Your task to perform on an android device: turn pop-ups on in chrome Image 0: 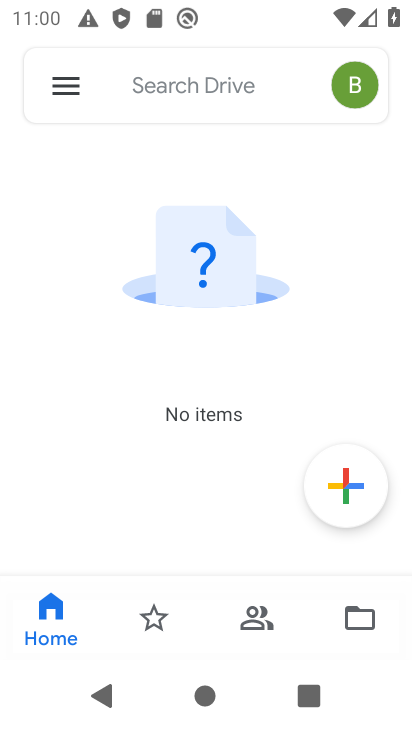
Step 0: press home button
Your task to perform on an android device: turn pop-ups on in chrome Image 1: 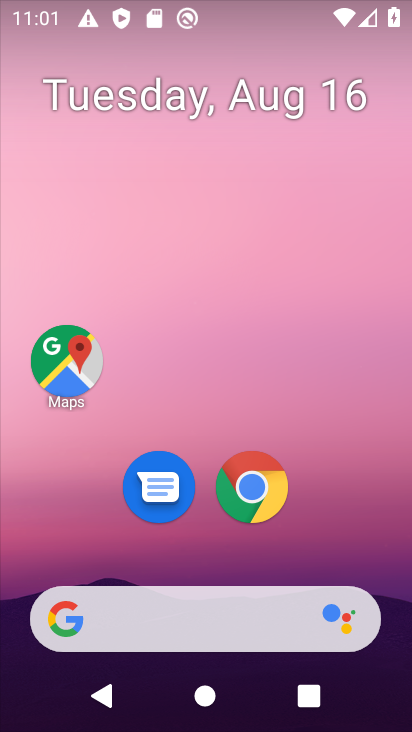
Step 1: click (240, 505)
Your task to perform on an android device: turn pop-ups on in chrome Image 2: 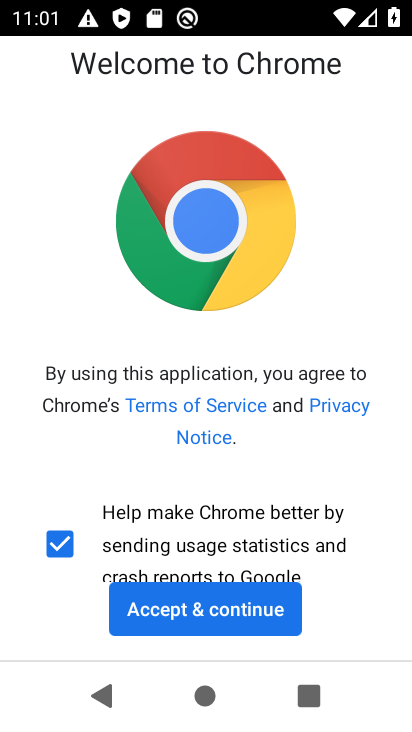
Step 2: click (285, 616)
Your task to perform on an android device: turn pop-ups on in chrome Image 3: 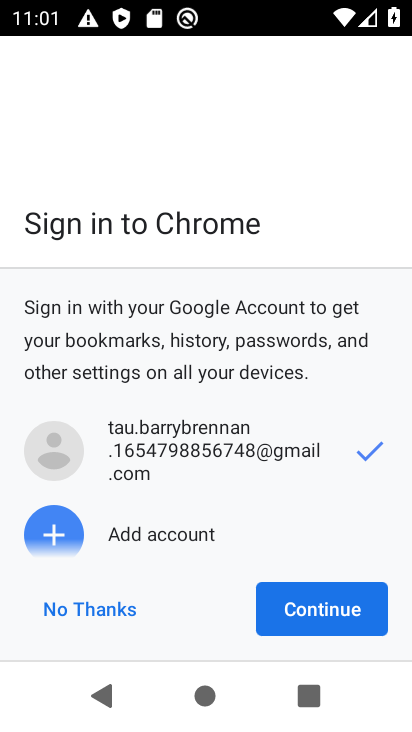
Step 3: click (285, 616)
Your task to perform on an android device: turn pop-ups on in chrome Image 4: 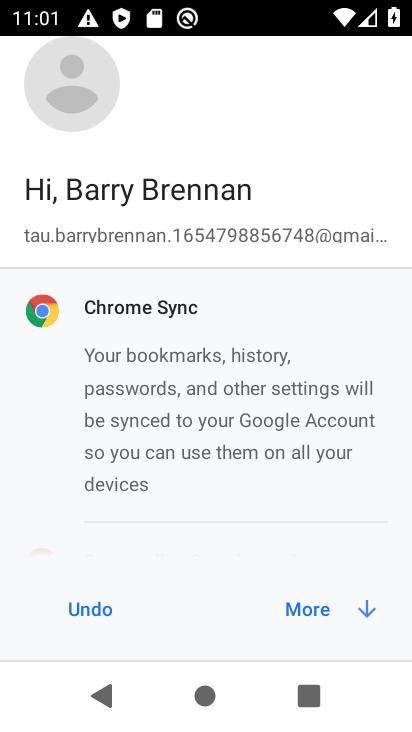
Step 4: click (323, 598)
Your task to perform on an android device: turn pop-ups on in chrome Image 5: 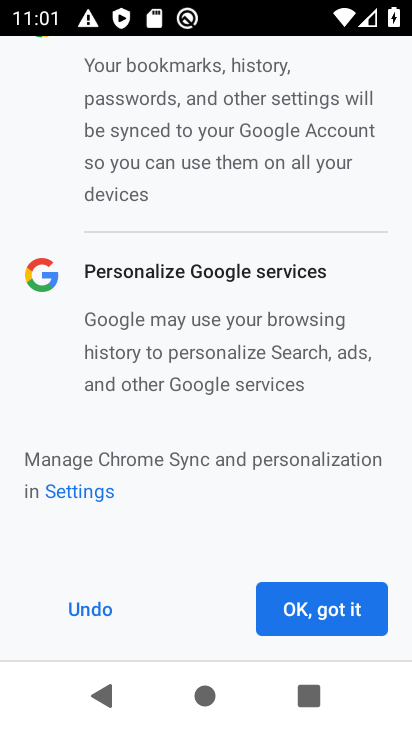
Step 5: click (323, 598)
Your task to perform on an android device: turn pop-ups on in chrome Image 6: 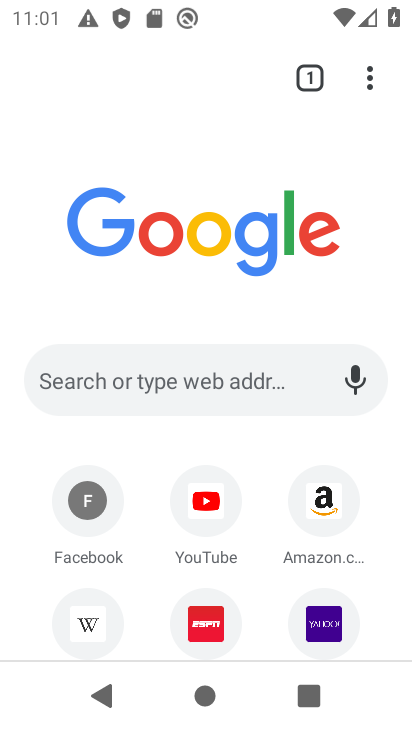
Step 6: click (377, 78)
Your task to perform on an android device: turn pop-ups on in chrome Image 7: 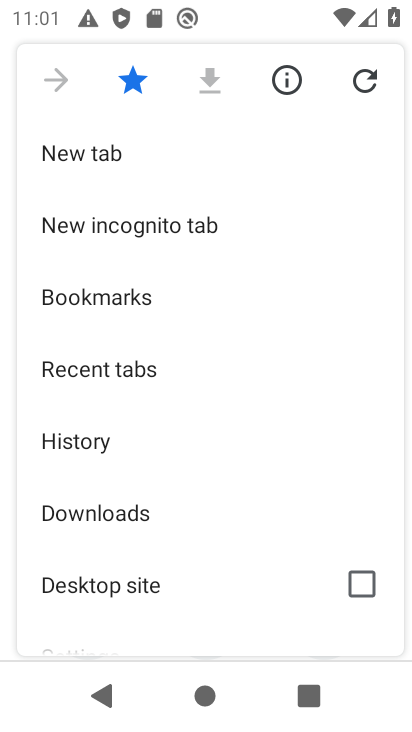
Step 7: drag from (261, 587) to (214, 173)
Your task to perform on an android device: turn pop-ups on in chrome Image 8: 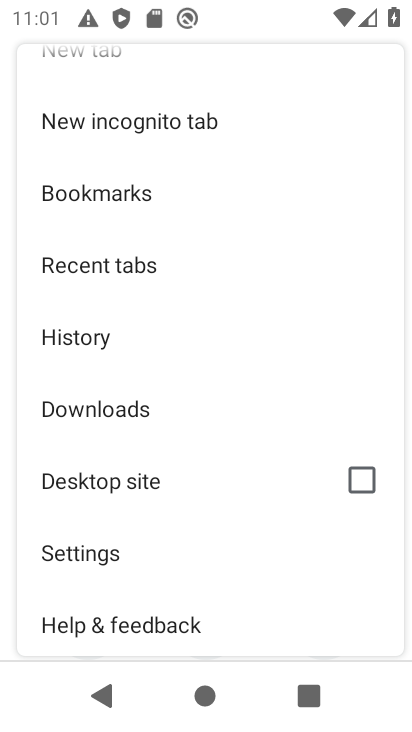
Step 8: click (96, 557)
Your task to perform on an android device: turn pop-ups on in chrome Image 9: 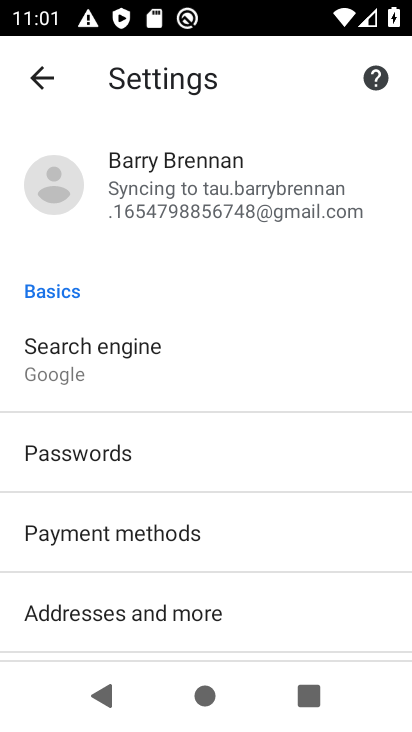
Step 9: drag from (174, 576) to (270, 12)
Your task to perform on an android device: turn pop-ups on in chrome Image 10: 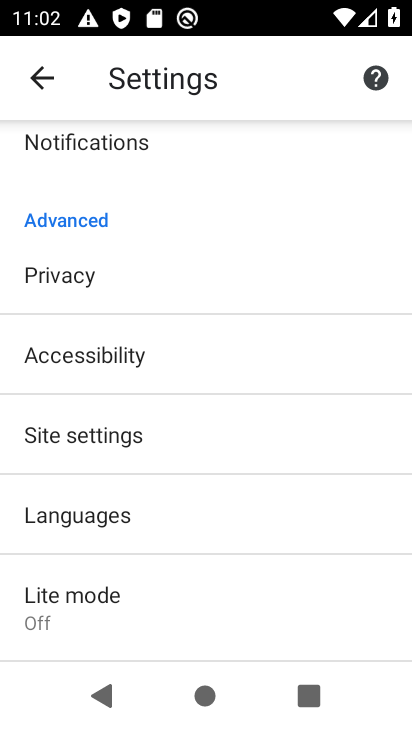
Step 10: click (102, 446)
Your task to perform on an android device: turn pop-ups on in chrome Image 11: 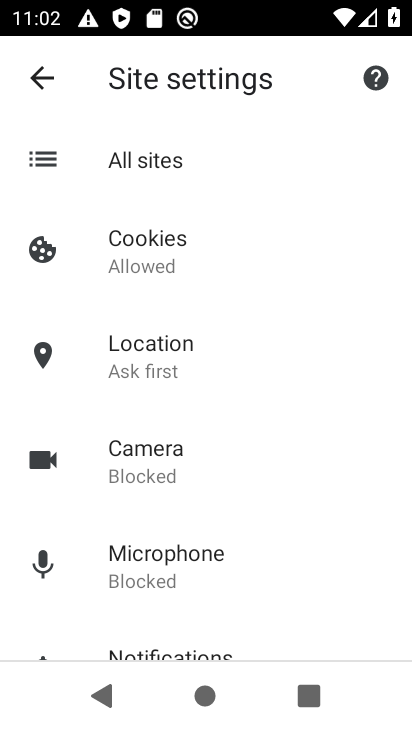
Step 11: drag from (238, 512) to (215, 317)
Your task to perform on an android device: turn pop-ups on in chrome Image 12: 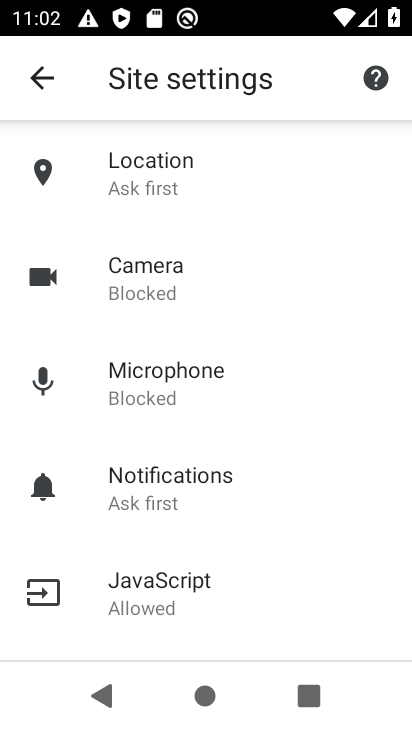
Step 12: drag from (225, 607) to (187, 465)
Your task to perform on an android device: turn pop-ups on in chrome Image 13: 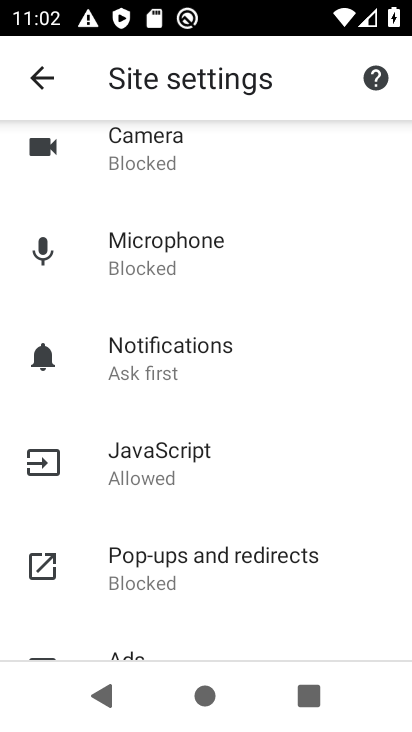
Step 13: click (193, 574)
Your task to perform on an android device: turn pop-ups on in chrome Image 14: 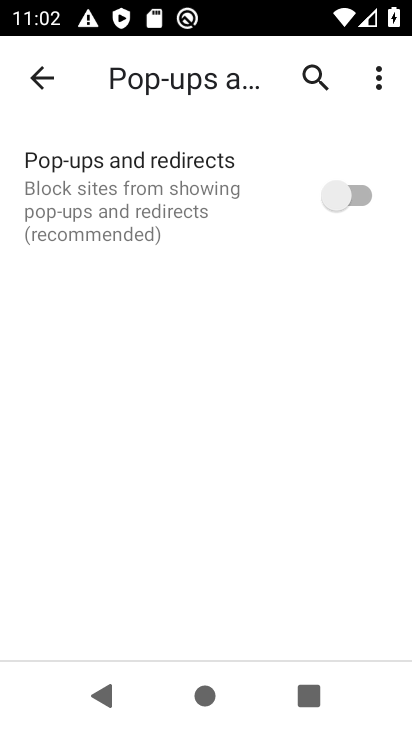
Step 14: click (342, 191)
Your task to perform on an android device: turn pop-ups on in chrome Image 15: 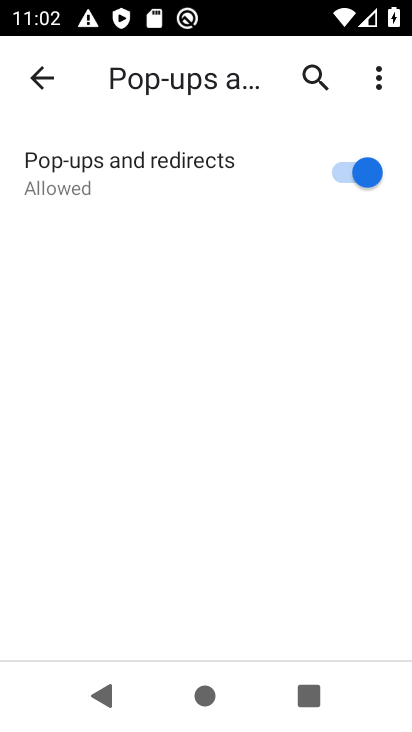
Step 15: task complete